Your task to perform on an android device: Open Chrome and go to settings Image 0: 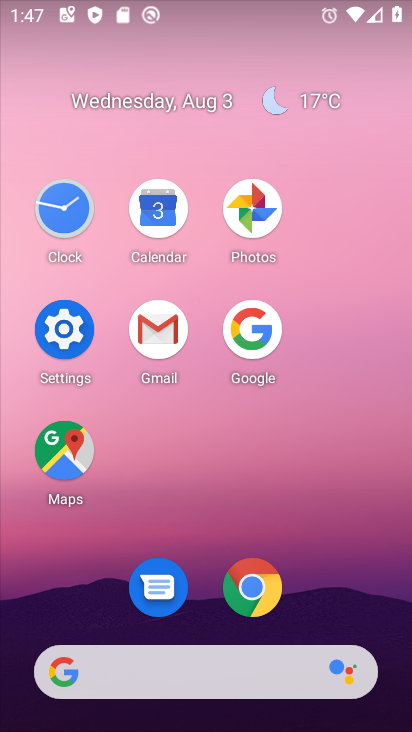
Step 0: click (244, 611)
Your task to perform on an android device: Open Chrome and go to settings Image 1: 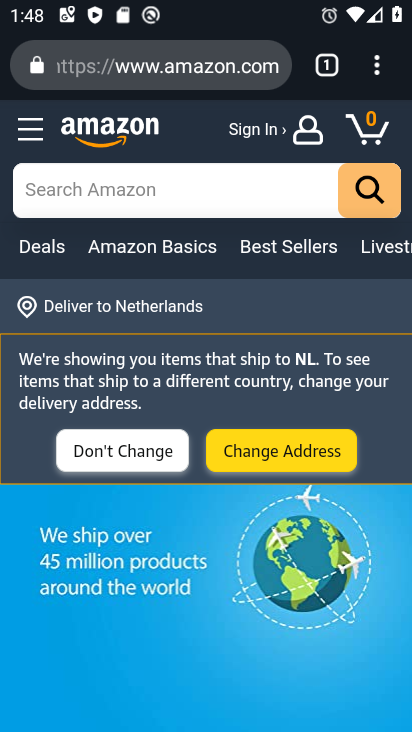
Step 1: click (372, 87)
Your task to perform on an android device: Open Chrome and go to settings Image 2: 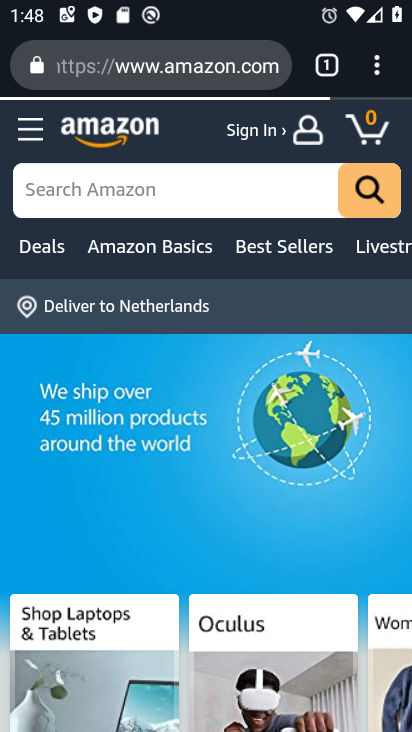
Step 2: click (371, 66)
Your task to perform on an android device: Open Chrome and go to settings Image 3: 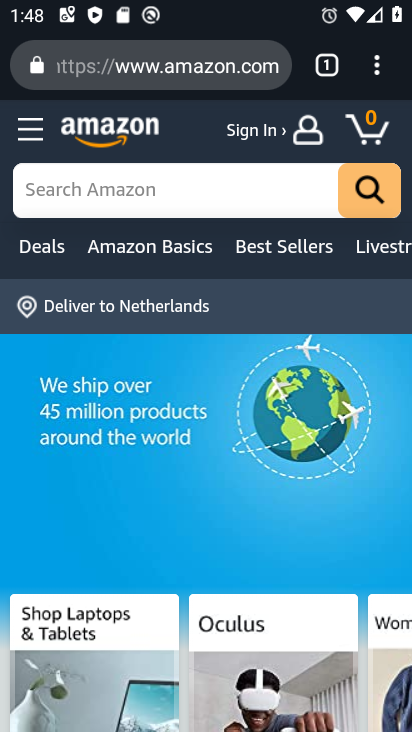
Step 3: click (371, 66)
Your task to perform on an android device: Open Chrome and go to settings Image 4: 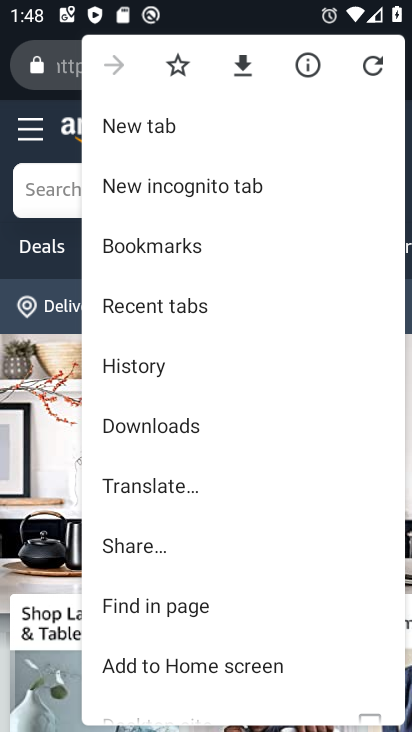
Step 4: drag from (214, 401) to (280, 100)
Your task to perform on an android device: Open Chrome and go to settings Image 5: 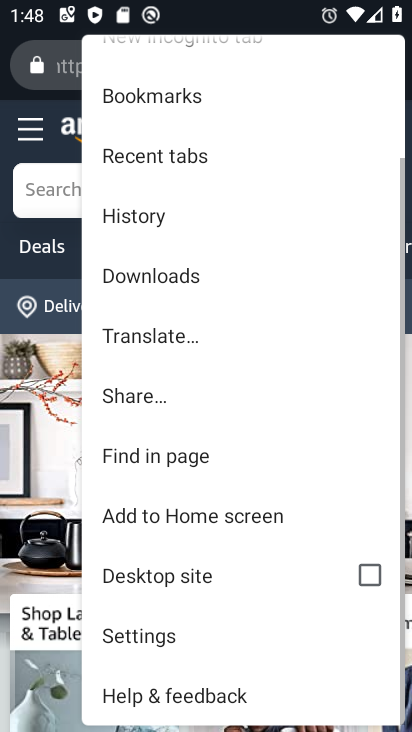
Step 5: click (131, 642)
Your task to perform on an android device: Open Chrome and go to settings Image 6: 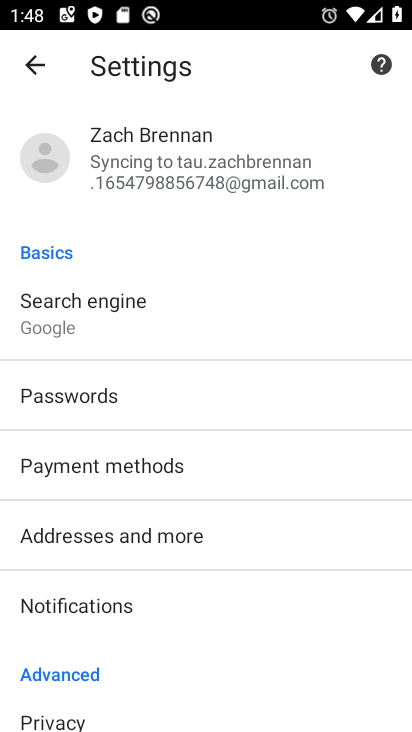
Step 6: task complete